Your task to perform on an android device: turn on wifi Image 0: 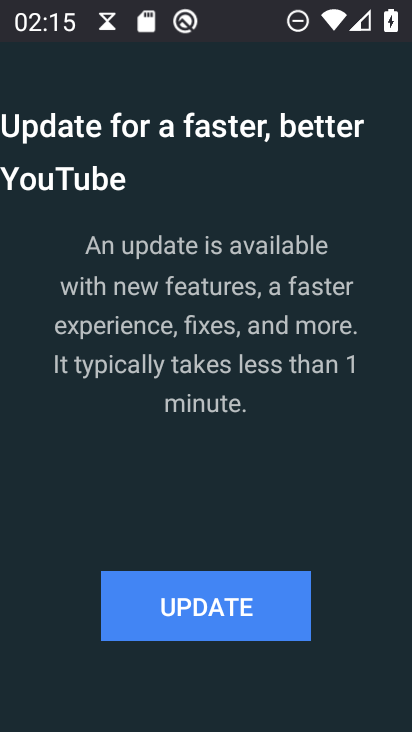
Step 0: press home button
Your task to perform on an android device: turn on wifi Image 1: 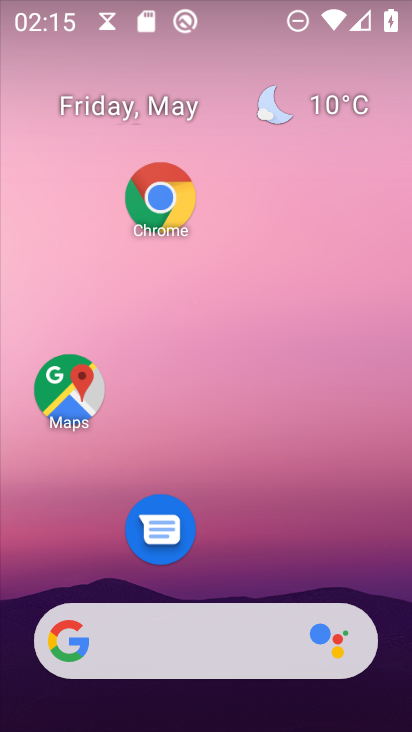
Step 1: drag from (214, 489) to (238, 112)
Your task to perform on an android device: turn on wifi Image 2: 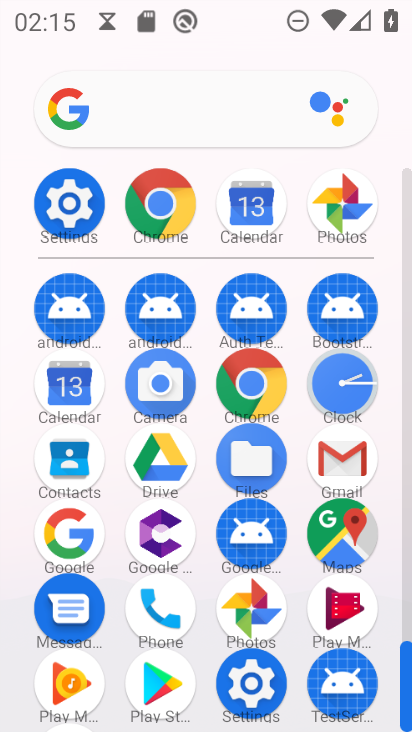
Step 2: click (73, 184)
Your task to perform on an android device: turn on wifi Image 3: 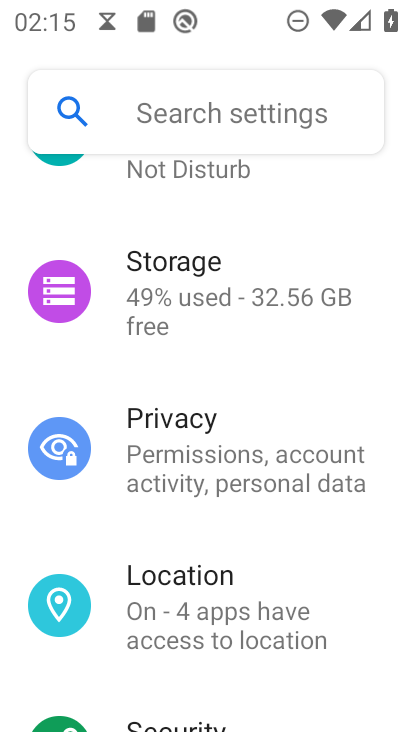
Step 3: drag from (160, 266) to (119, 565)
Your task to perform on an android device: turn on wifi Image 4: 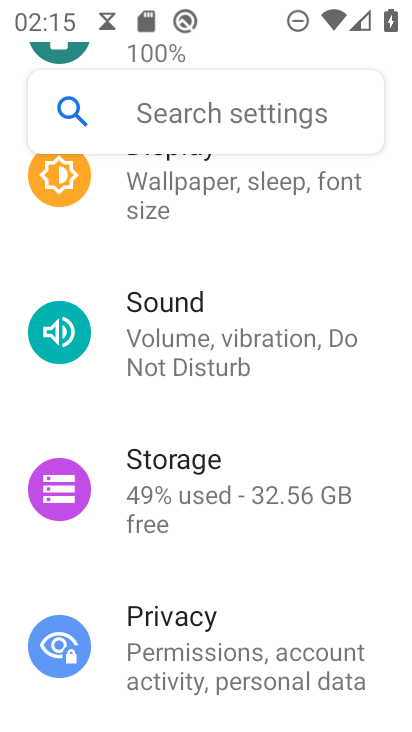
Step 4: drag from (228, 218) to (197, 598)
Your task to perform on an android device: turn on wifi Image 5: 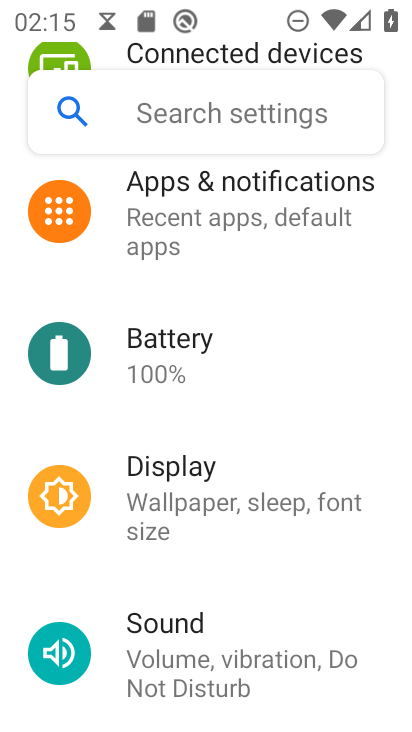
Step 5: drag from (218, 196) to (214, 656)
Your task to perform on an android device: turn on wifi Image 6: 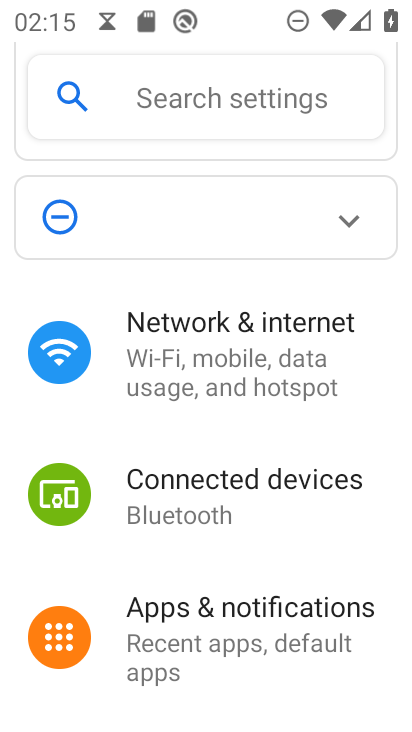
Step 6: click (189, 352)
Your task to perform on an android device: turn on wifi Image 7: 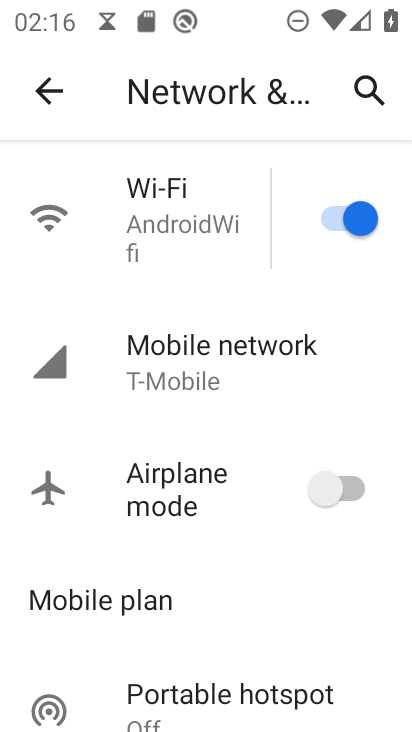
Step 7: task complete